Your task to perform on an android device: uninstall "Move to iOS" Image 0: 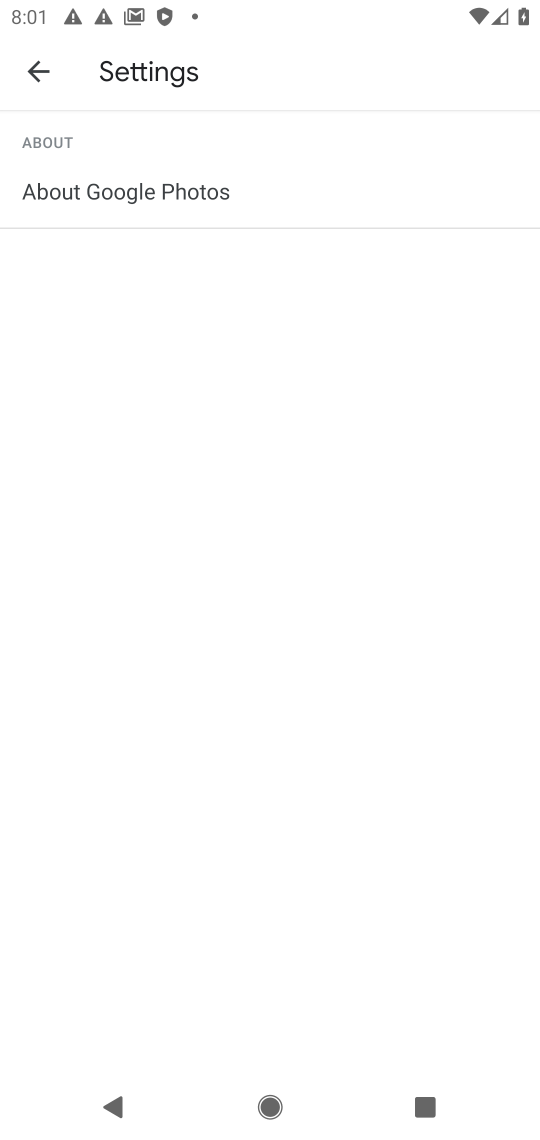
Step 0: press home button
Your task to perform on an android device: uninstall "Move to iOS" Image 1: 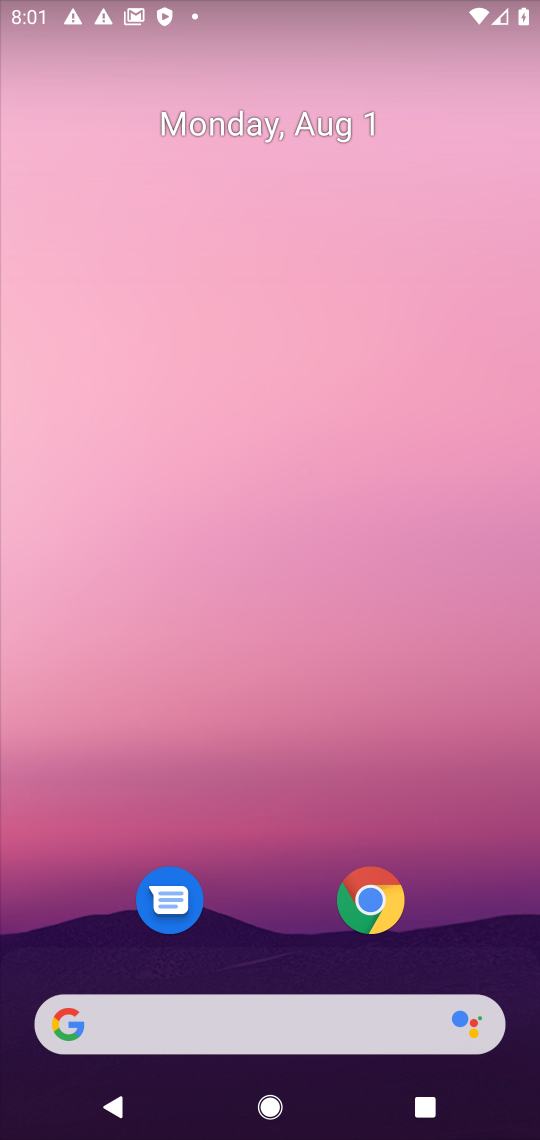
Step 1: drag from (301, 931) to (489, 47)
Your task to perform on an android device: uninstall "Move to iOS" Image 2: 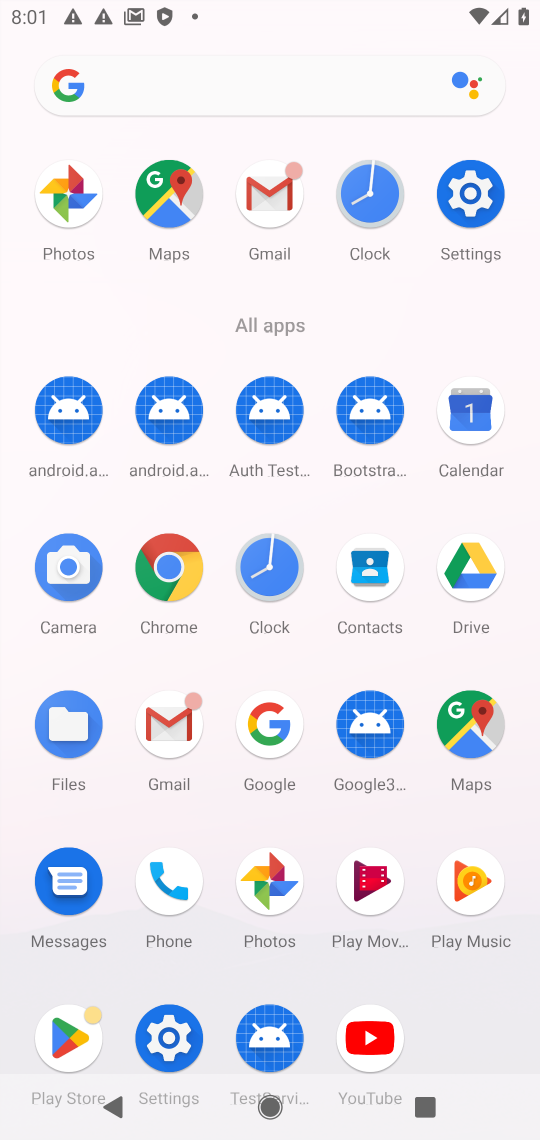
Step 2: click (70, 1069)
Your task to perform on an android device: uninstall "Move to iOS" Image 3: 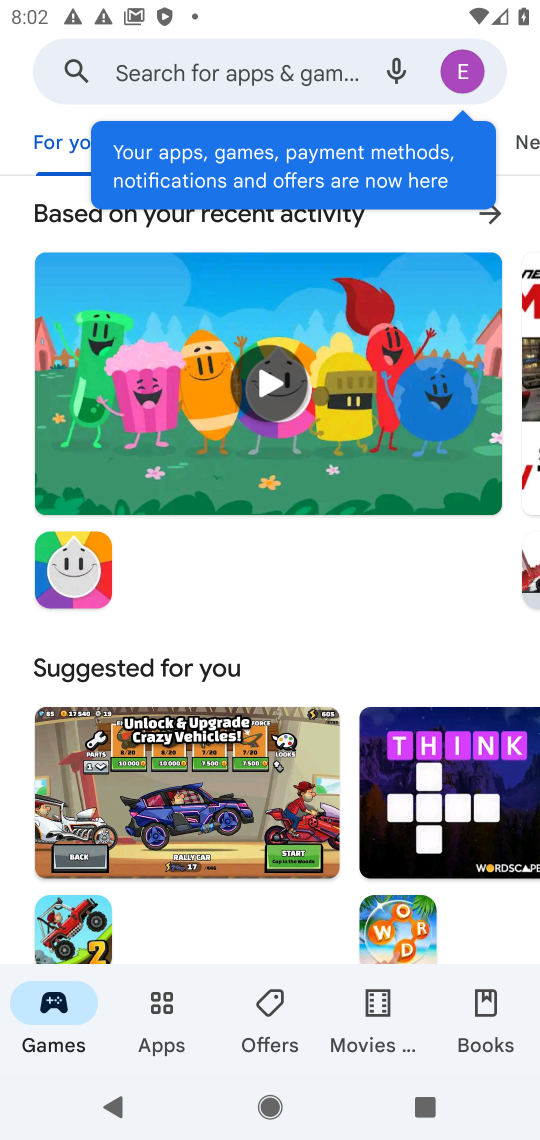
Step 3: click (201, 65)
Your task to perform on an android device: uninstall "Move to iOS" Image 4: 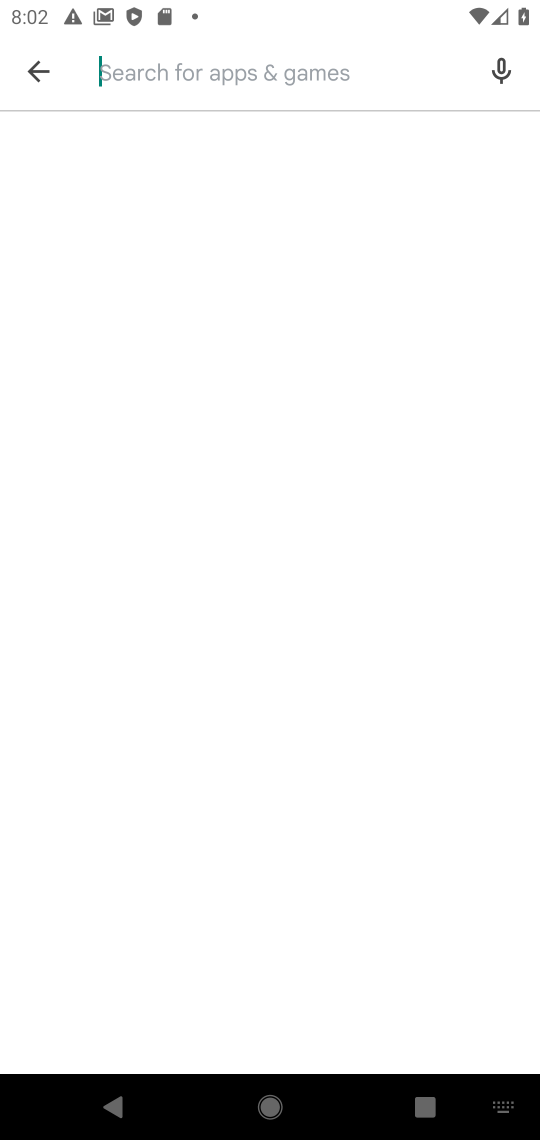
Step 4: type "Move to iOS"
Your task to perform on an android device: uninstall "Move to iOS" Image 5: 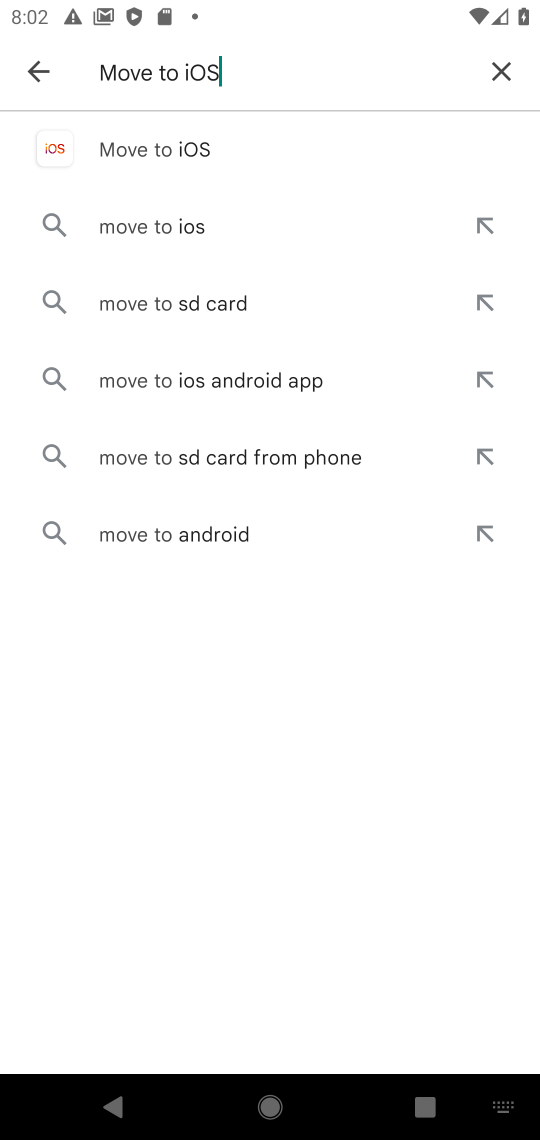
Step 5: type ""
Your task to perform on an android device: uninstall "Move to iOS" Image 6: 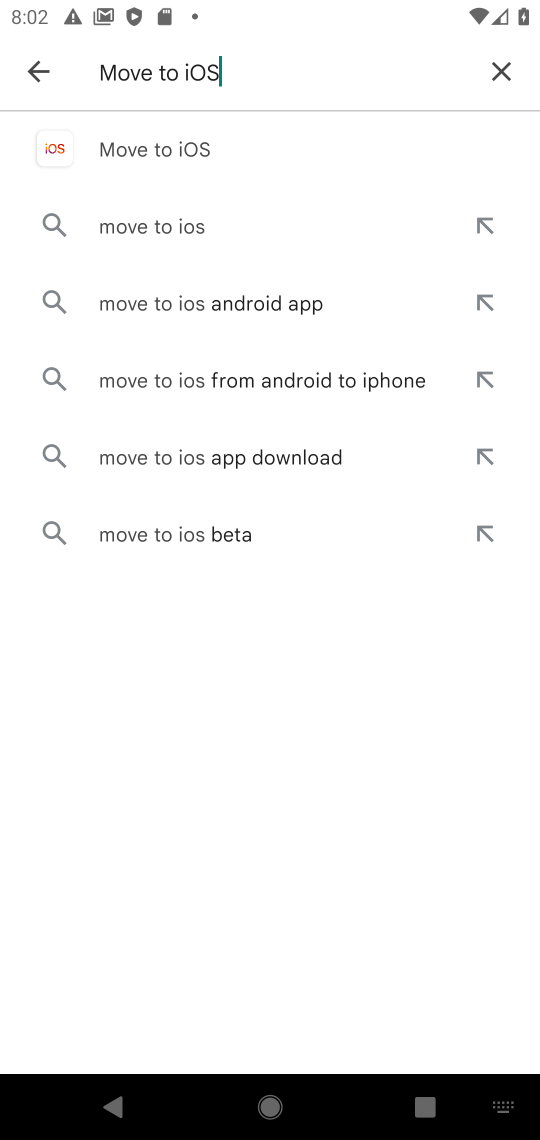
Step 6: click (214, 145)
Your task to perform on an android device: uninstall "Move to iOS" Image 7: 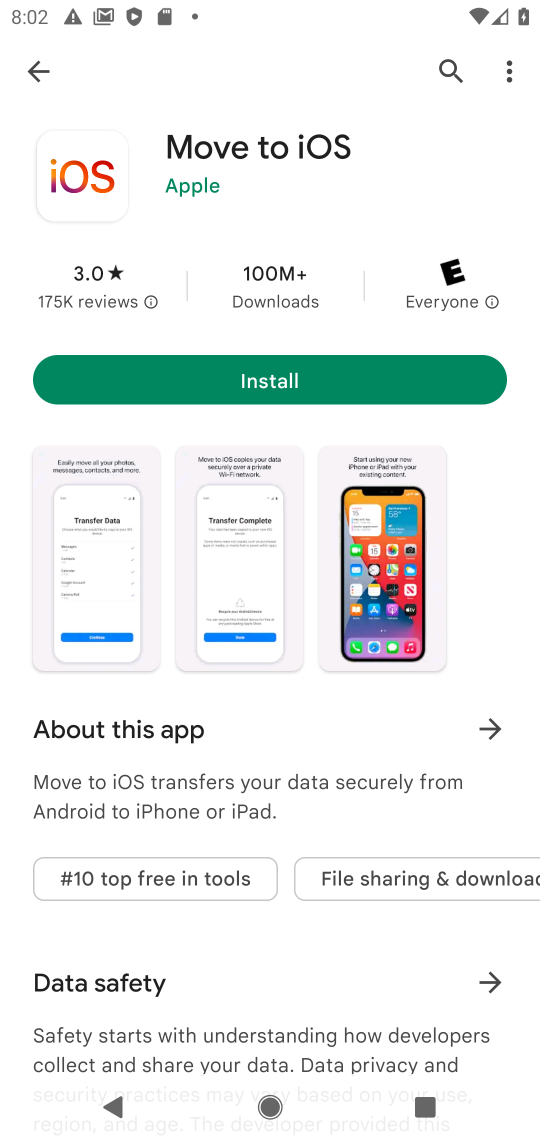
Step 7: task complete